Your task to perform on an android device: read, delete, or share a saved page in the chrome app Image 0: 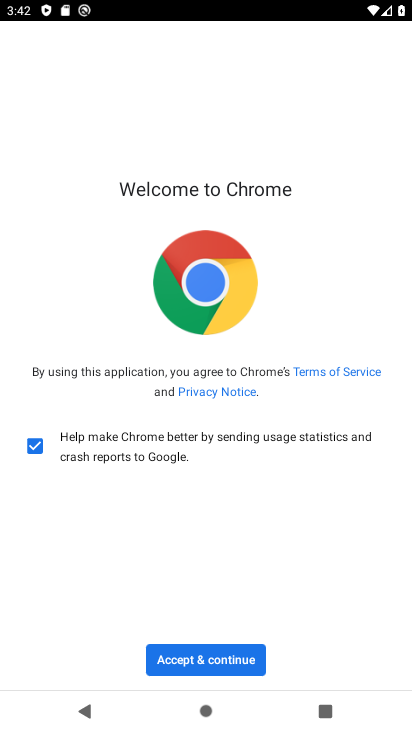
Step 0: press home button
Your task to perform on an android device: read, delete, or share a saved page in the chrome app Image 1: 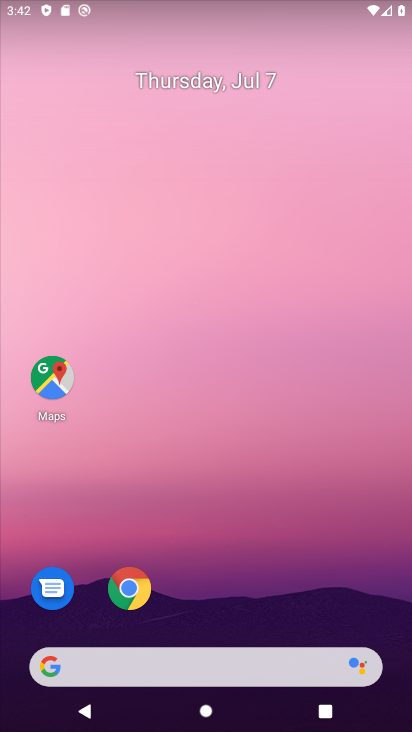
Step 1: click (128, 596)
Your task to perform on an android device: read, delete, or share a saved page in the chrome app Image 2: 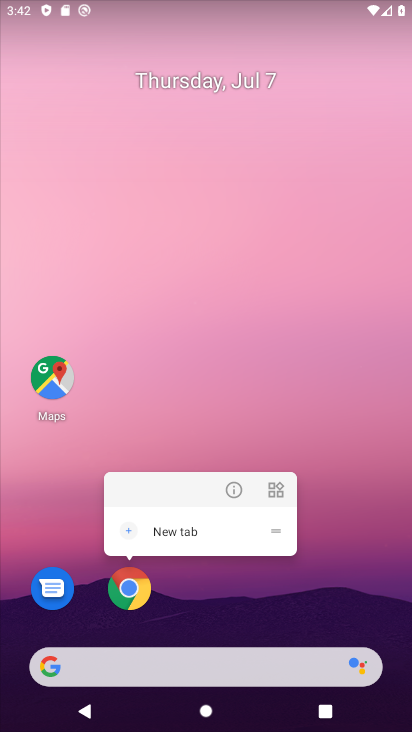
Step 2: click (244, 617)
Your task to perform on an android device: read, delete, or share a saved page in the chrome app Image 3: 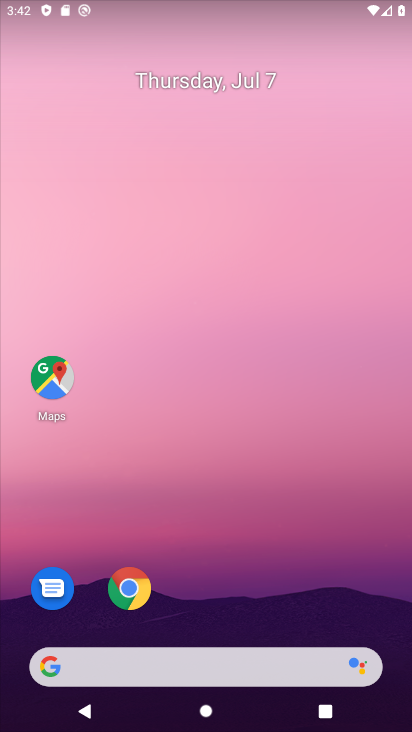
Step 3: drag from (244, 632) to (244, 96)
Your task to perform on an android device: read, delete, or share a saved page in the chrome app Image 4: 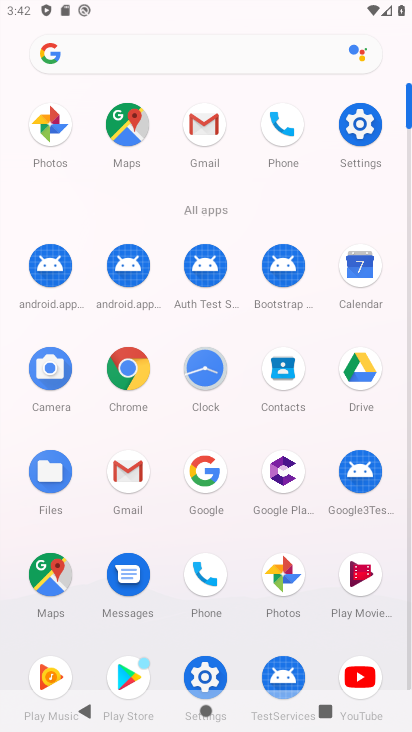
Step 4: click (132, 370)
Your task to perform on an android device: read, delete, or share a saved page in the chrome app Image 5: 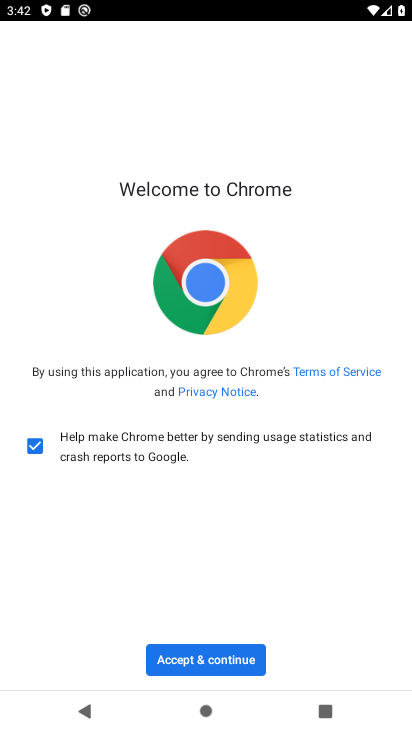
Step 5: click (198, 658)
Your task to perform on an android device: read, delete, or share a saved page in the chrome app Image 6: 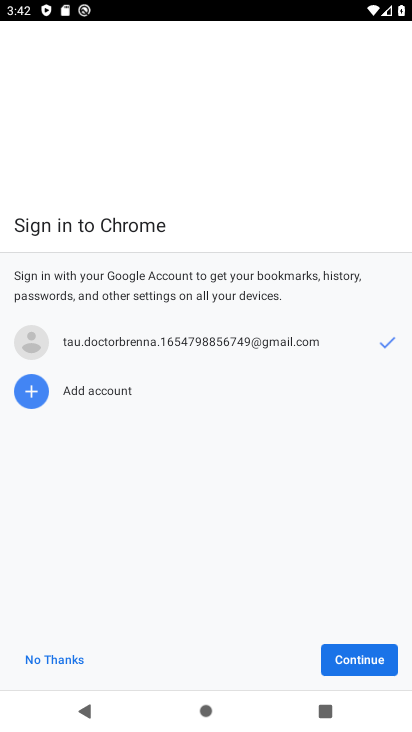
Step 6: click (347, 663)
Your task to perform on an android device: read, delete, or share a saved page in the chrome app Image 7: 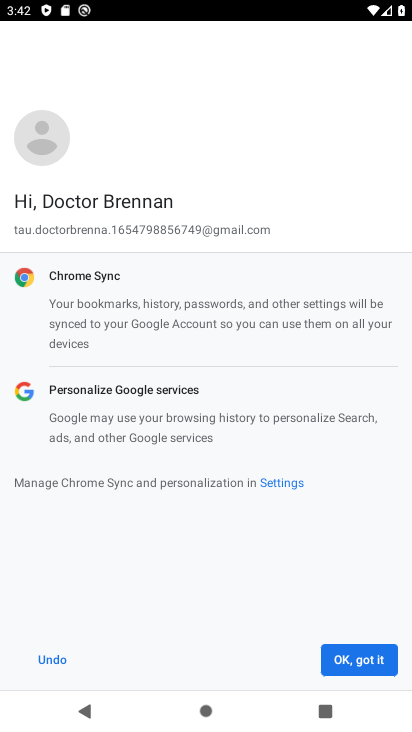
Step 7: click (347, 663)
Your task to perform on an android device: read, delete, or share a saved page in the chrome app Image 8: 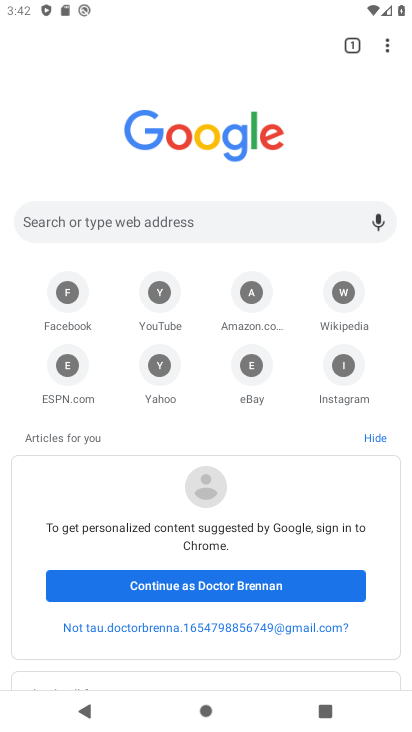
Step 8: drag from (389, 49) to (233, 300)
Your task to perform on an android device: read, delete, or share a saved page in the chrome app Image 9: 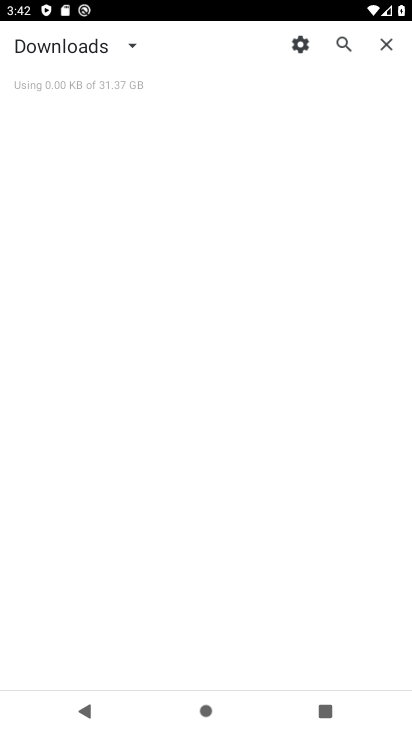
Step 9: click (130, 46)
Your task to perform on an android device: read, delete, or share a saved page in the chrome app Image 10: 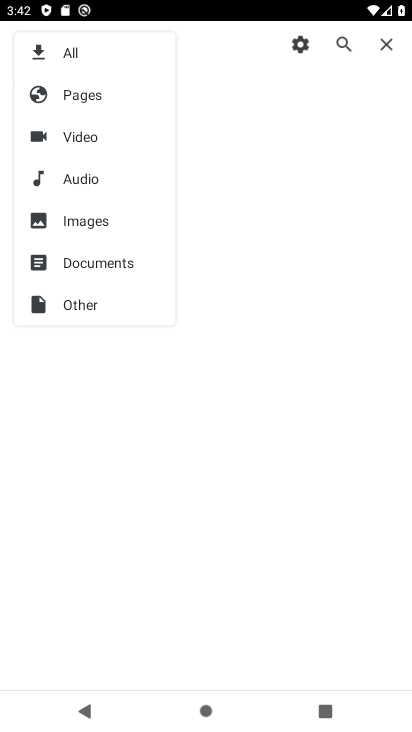
Step 10: click (89, 96)
Your task to perform on an android device: read, delete, or share a saved page in the chrome app Image 11: 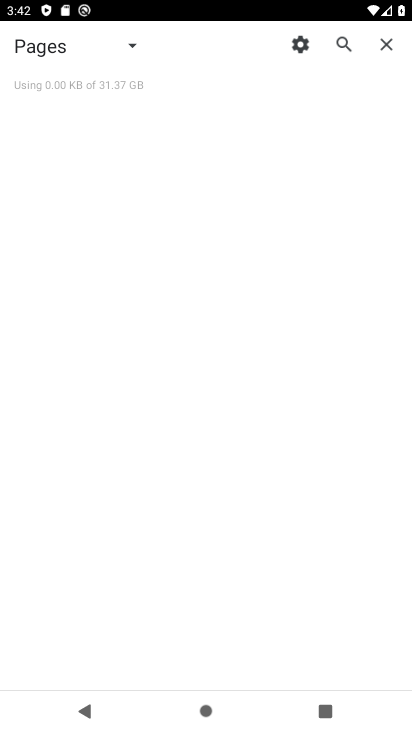
Step 11: click (135, 48)
Your task to perform on an android device: read, delete, or share a saved page in the chrome app Image 12: 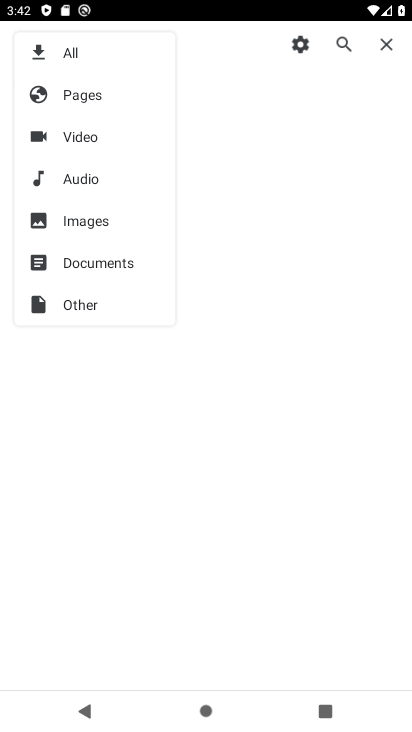
Step 12: click (87, 96)
Your task to perform on an android device: read, delete, or share a saved page in the chrome app Image 13: 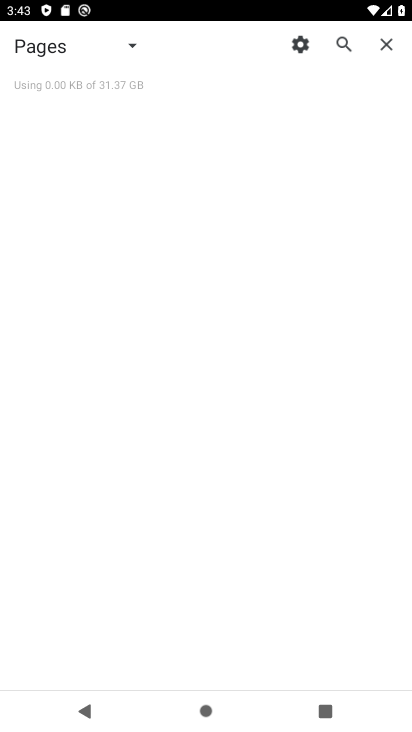
Step 13: task complete